Your task to perform on an android device: clear history in the chrome app Image 0: 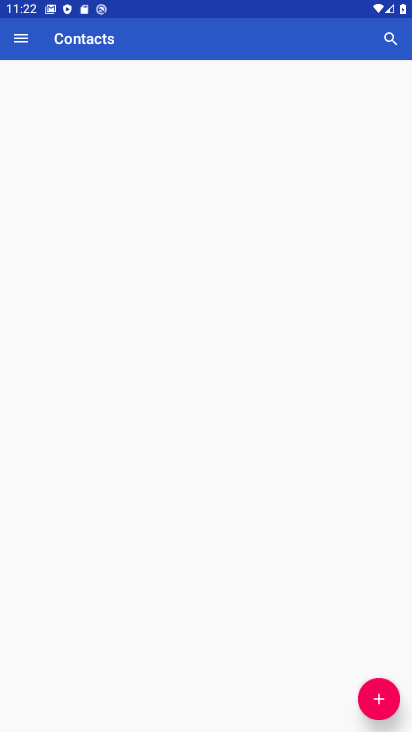
Step 0: press home button
Your task to perform on an android device: clear history in the chrome app Image 1: 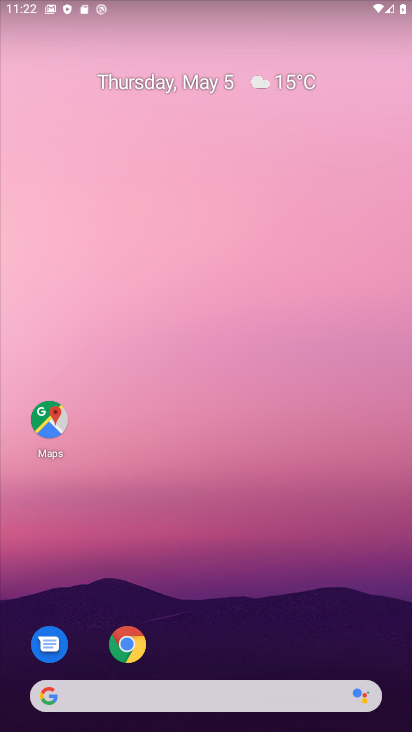
Step 1: click (132, 646)
Your task to perform on an android device: clear history in the chrome app Image 2: 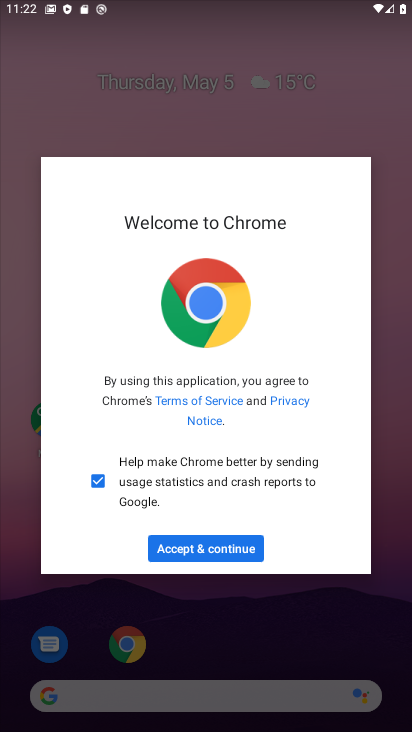
Step 2: click (194, 540)
Your task to perform on an android device: clear history in the chrome app Image 3: 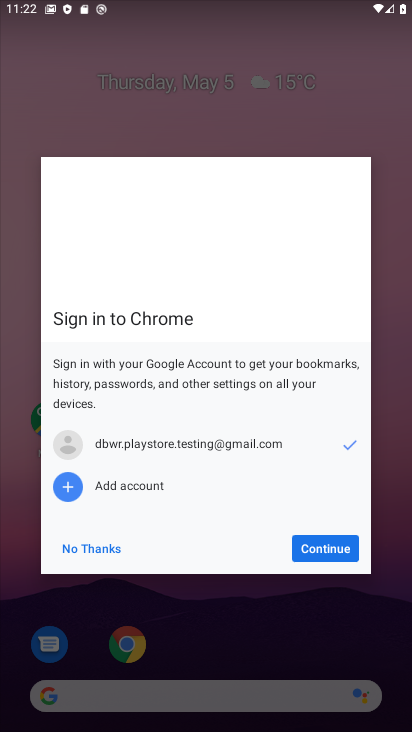
Step 3: click (310, 538)
Your task to perform on an android device: clear history in the chrome app Image 4: 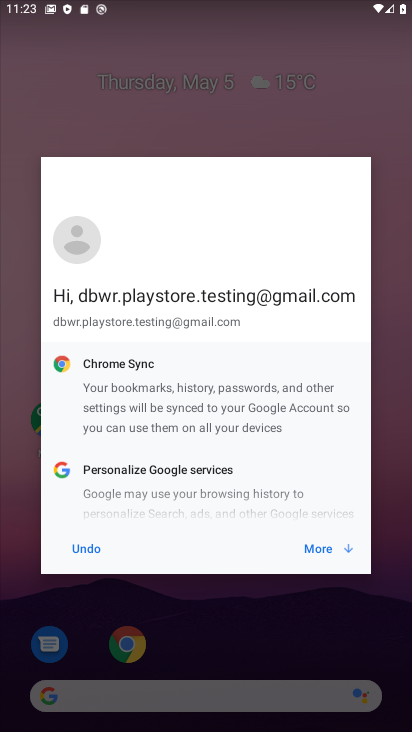
Step 4: click (318, 556)
Your task to perform on an android device: clear history in the chrome app Image 5: 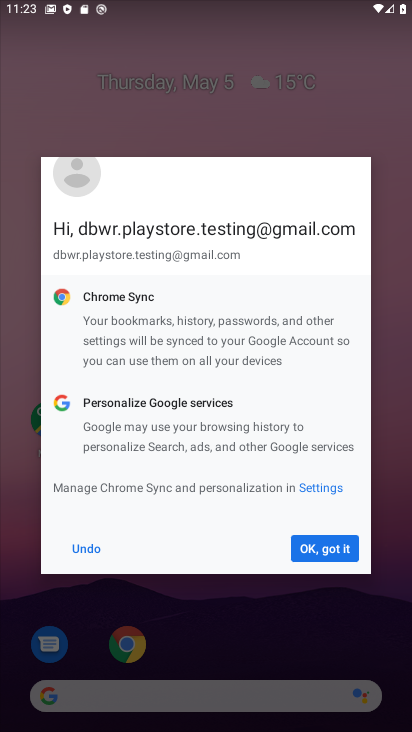
Step 5: click (318, 556)
Your task to perform on an android device: clear history in the chrome app Image 6: 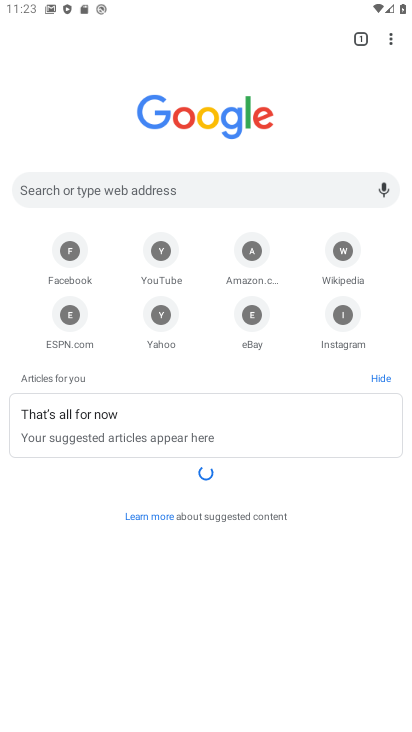
Step 6: click (389, 35)
Your task to perform on an android device: clear history in the chrome app Image 7: 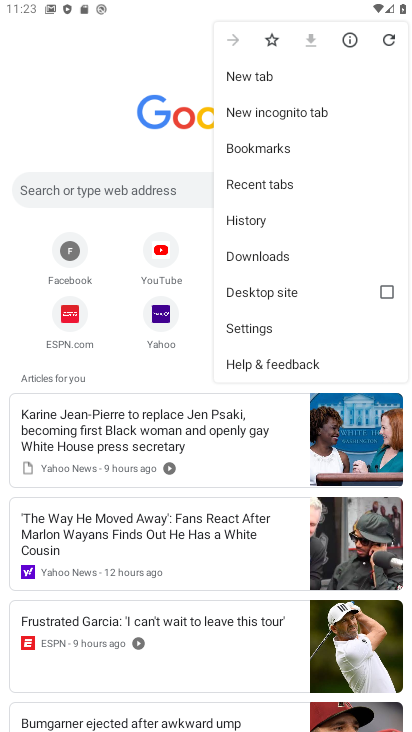
Step 7: click (241, 222)
Your task to perform on an android device: clear history in the chrome app Image 8: 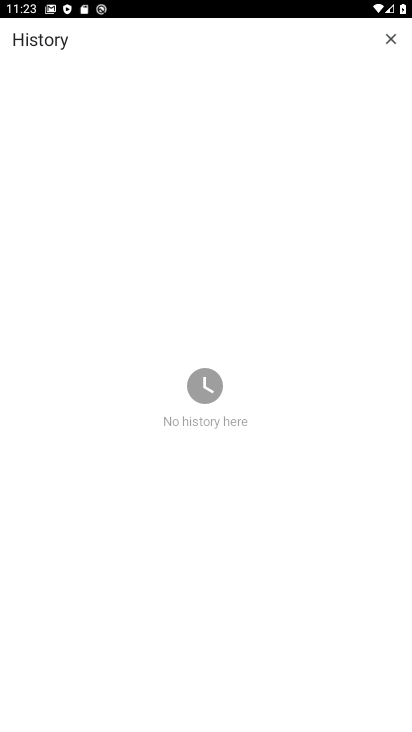
Step 8: task complete